Your task to perform on an android device: allow notifications from all sites in the chrome app Image 0: 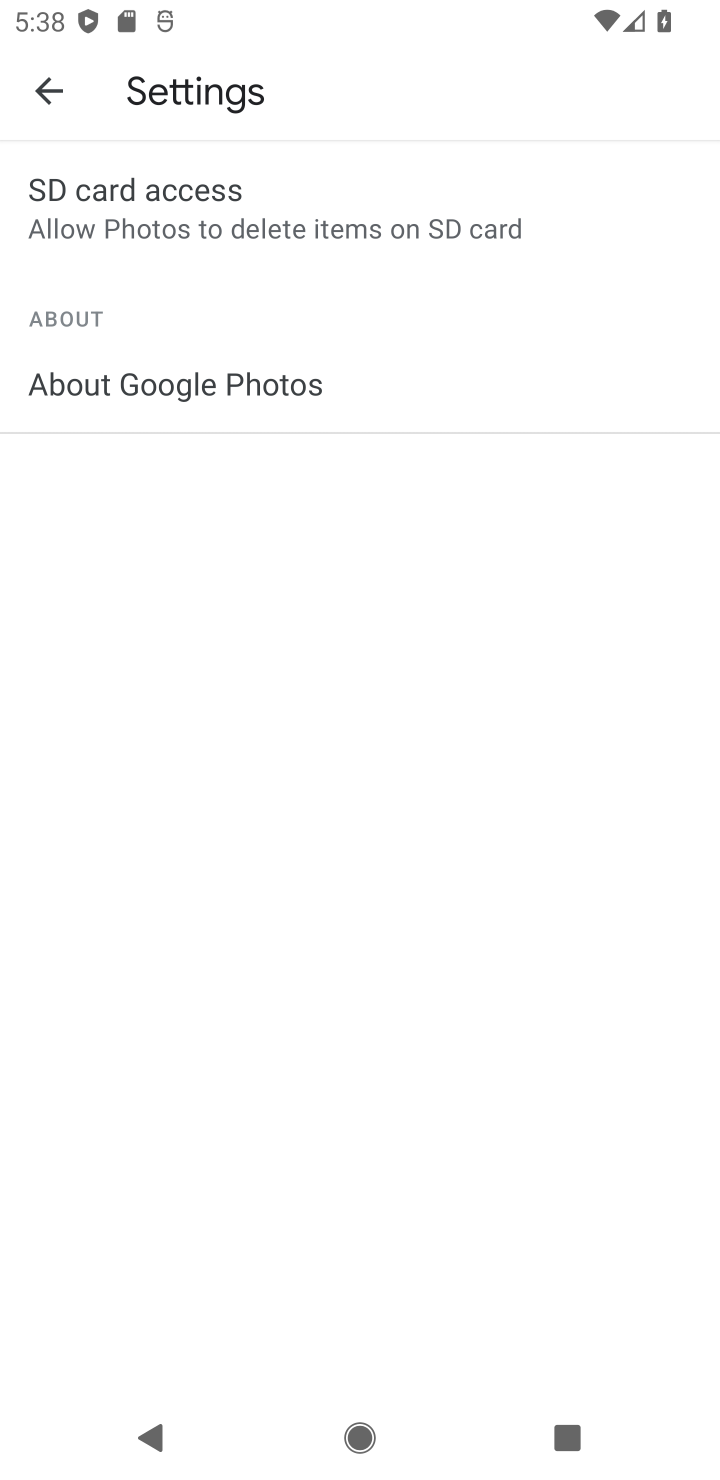
Step 0: press home button
Your task to perform on an android device: allow notifications from all sites in the chrome app Image 1: 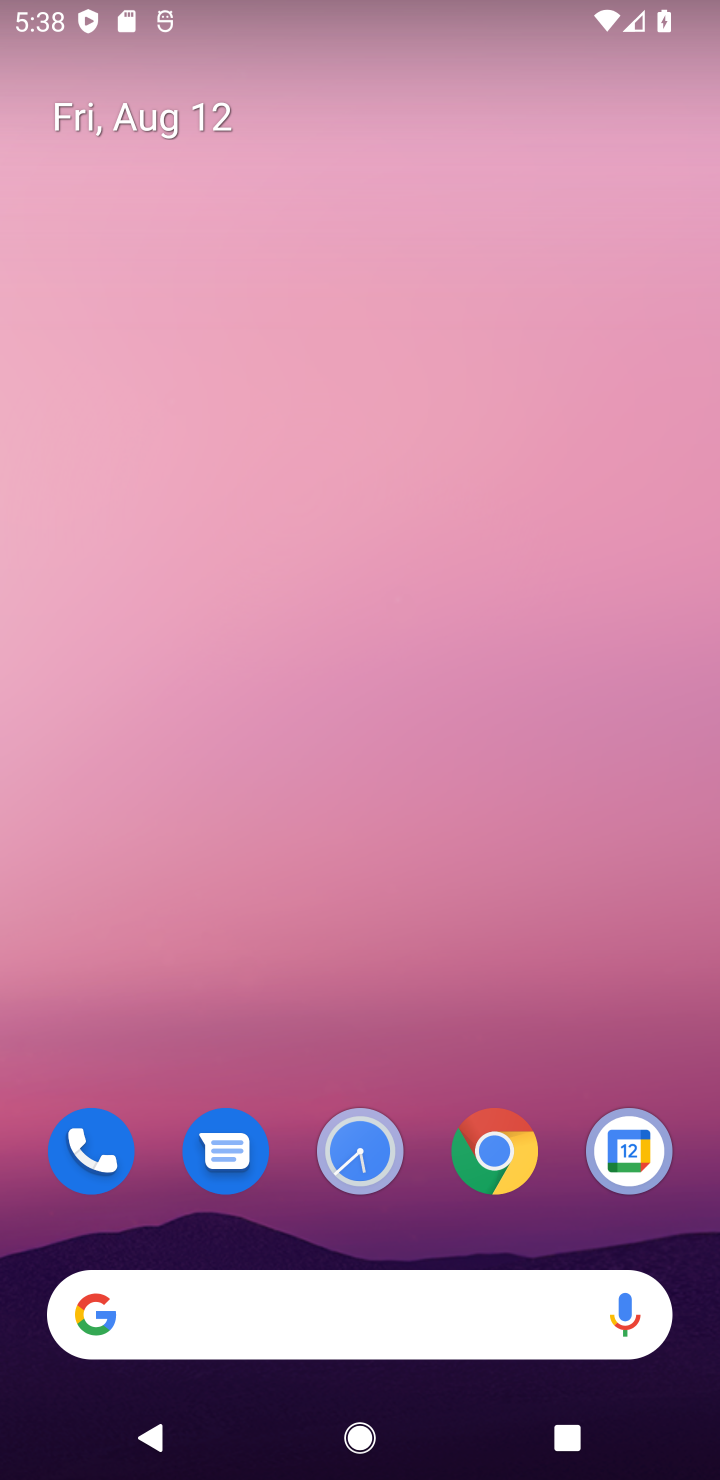
Step 1: drag from (498, 960) to (486, 102)
Your task to perform on an android device: allow notifications from all sites in the chrome app Image 2: 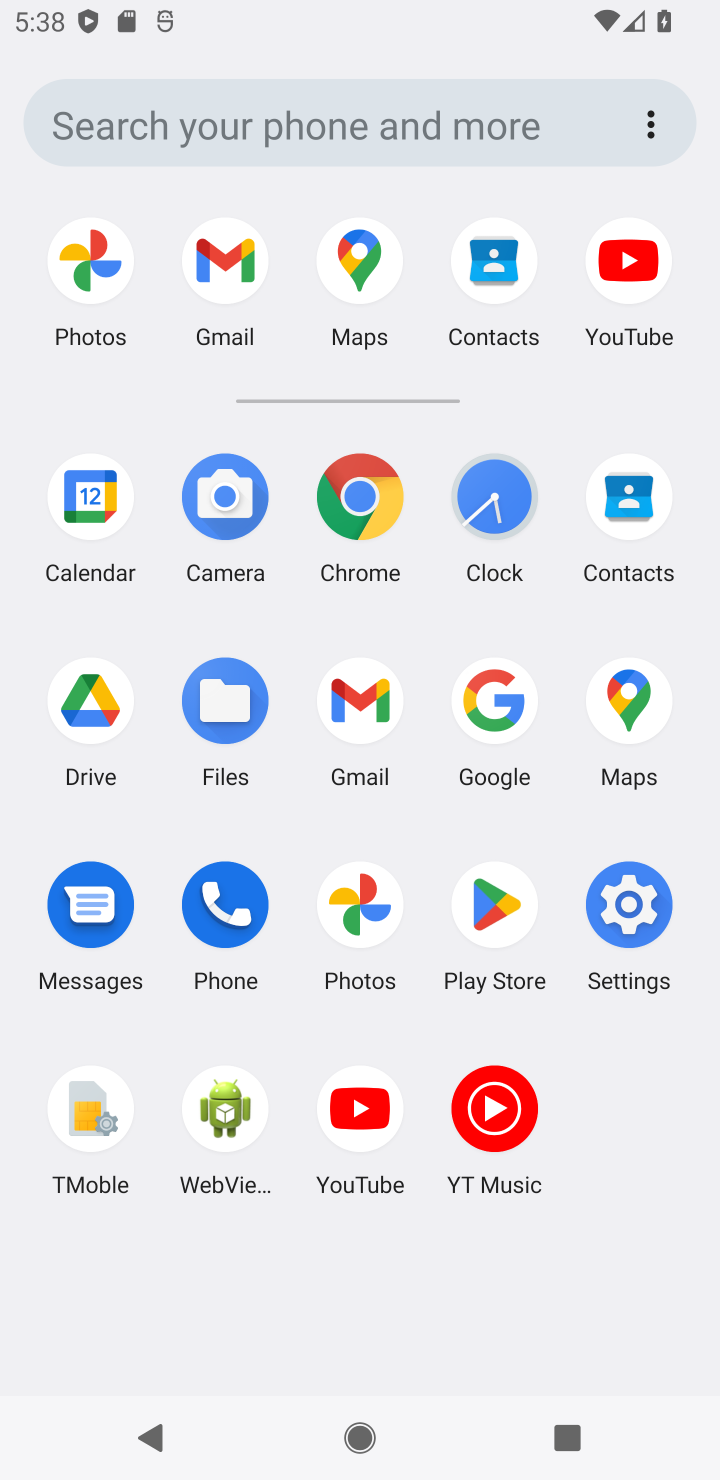
Step 2: click (350, 511)
Your task to perform on an android device: allow notifications from all sites in the chrome app Image 3: 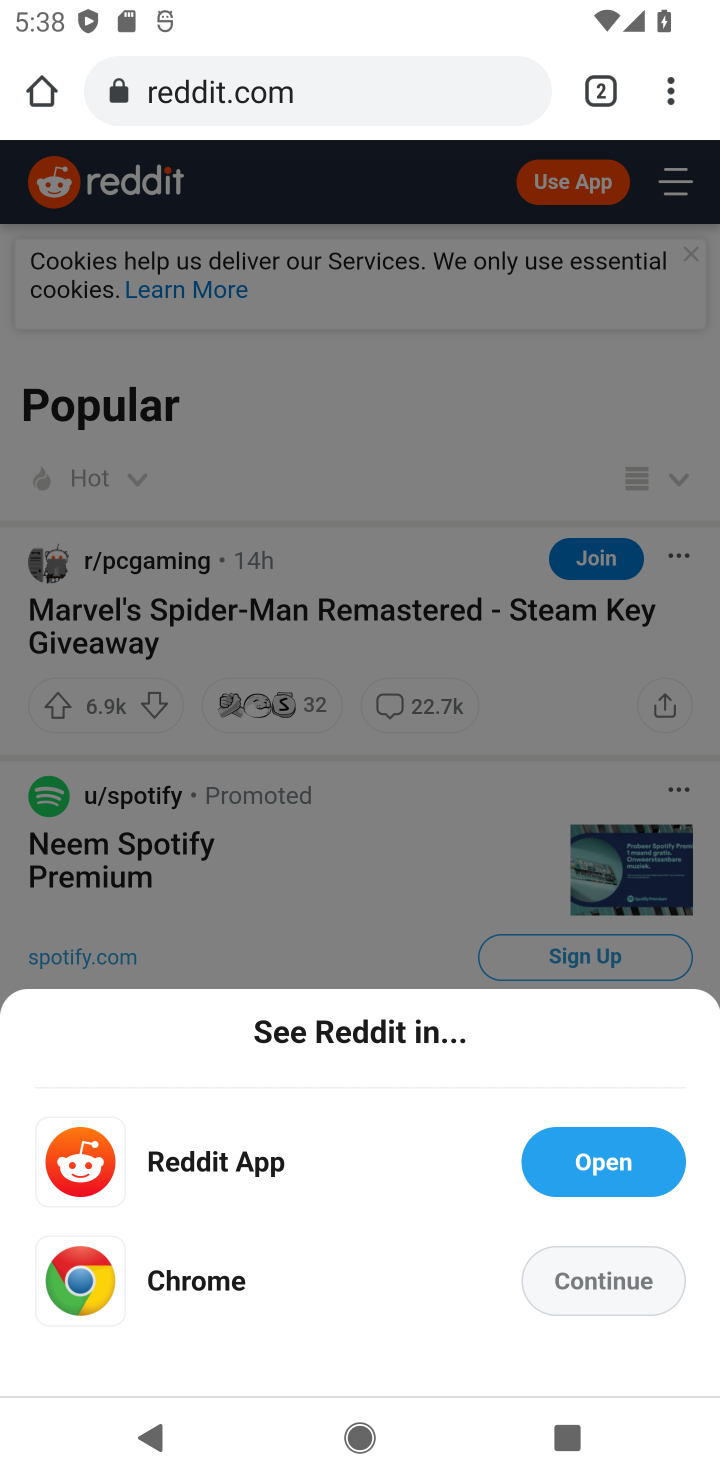
Step 3: drag from (687, 75) to (429, 1263)
Your task to perform on an android device: allow notifications from all sites in the chrome app Image 4: 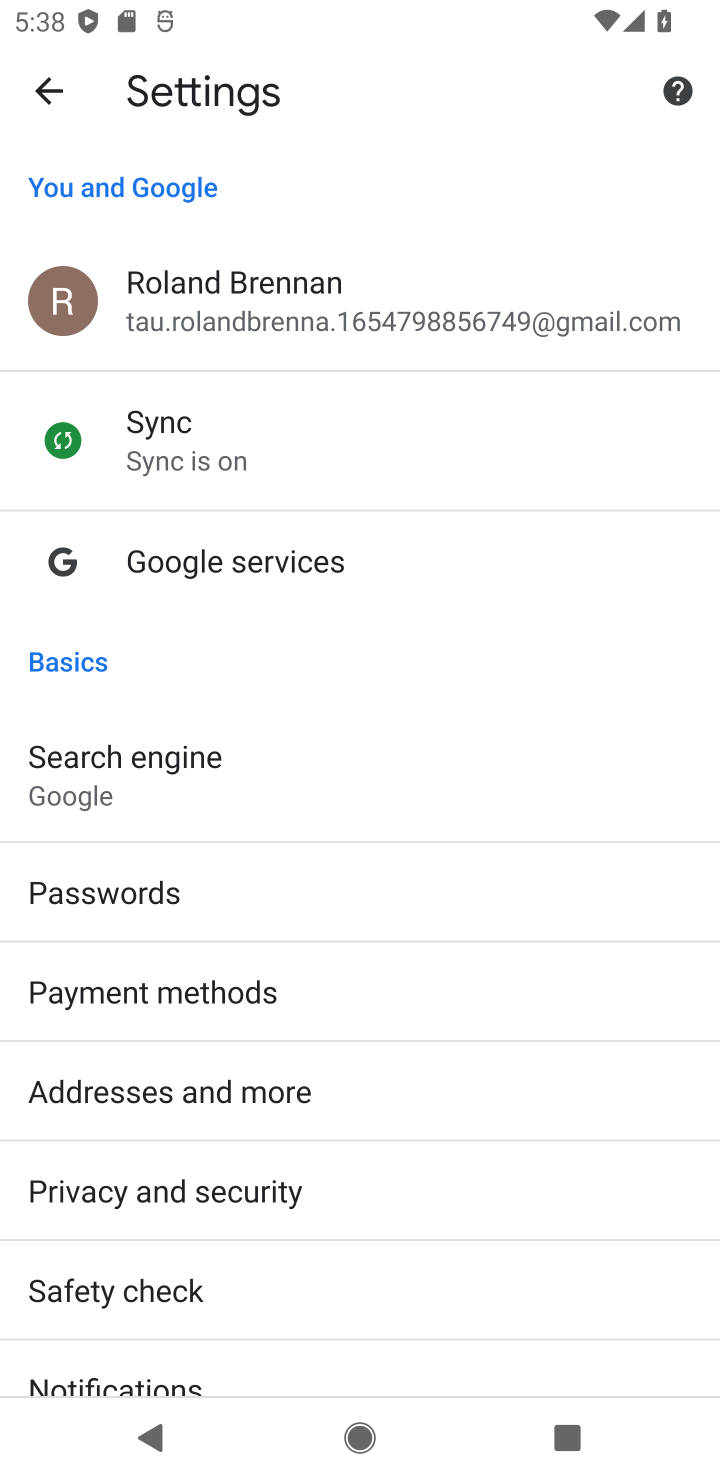
Step 4: drag from (400, 1222) to (434, 581)
Your task to perform on an android device: allow notifications from all sites in the chrome app Image 5: 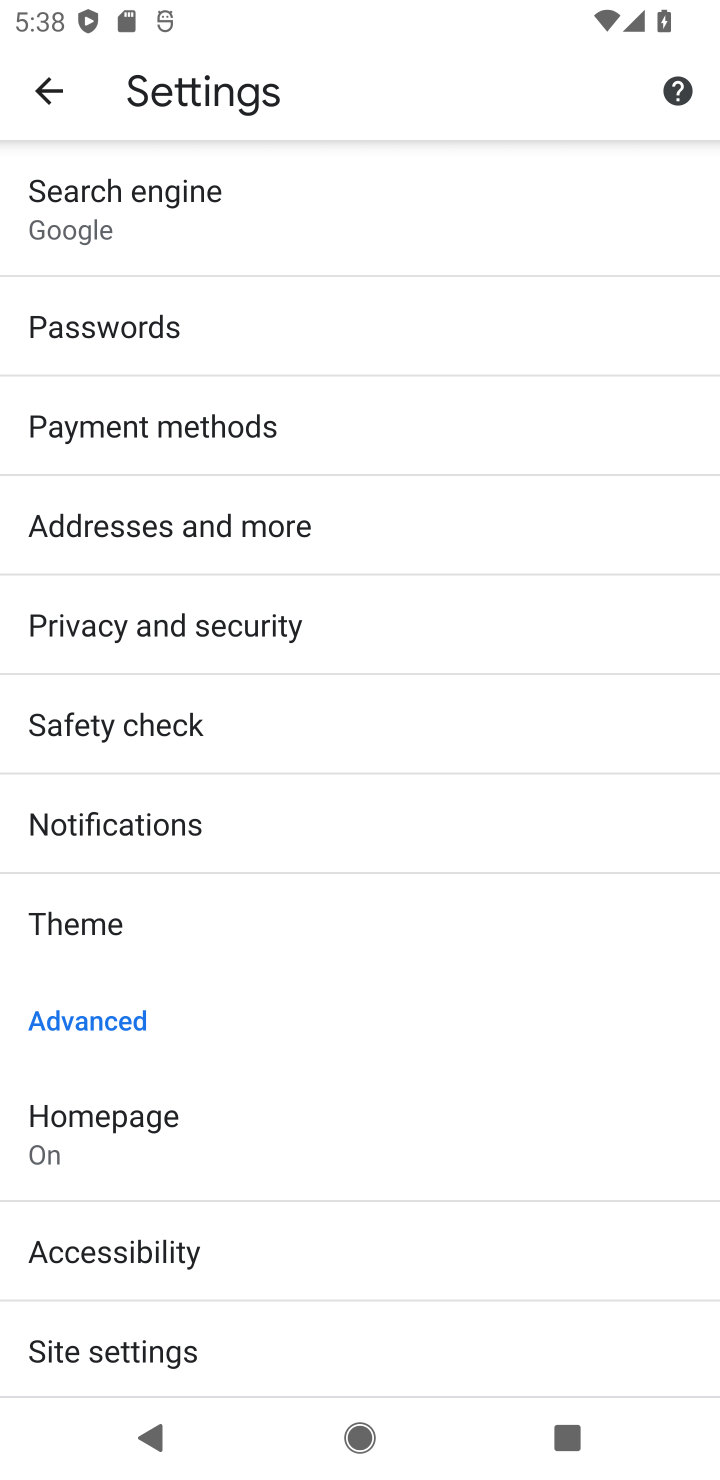
Step 5: click (162, 814)
Your task to perform on an android device: allow notifications from all sites in the chrome app Image 6: 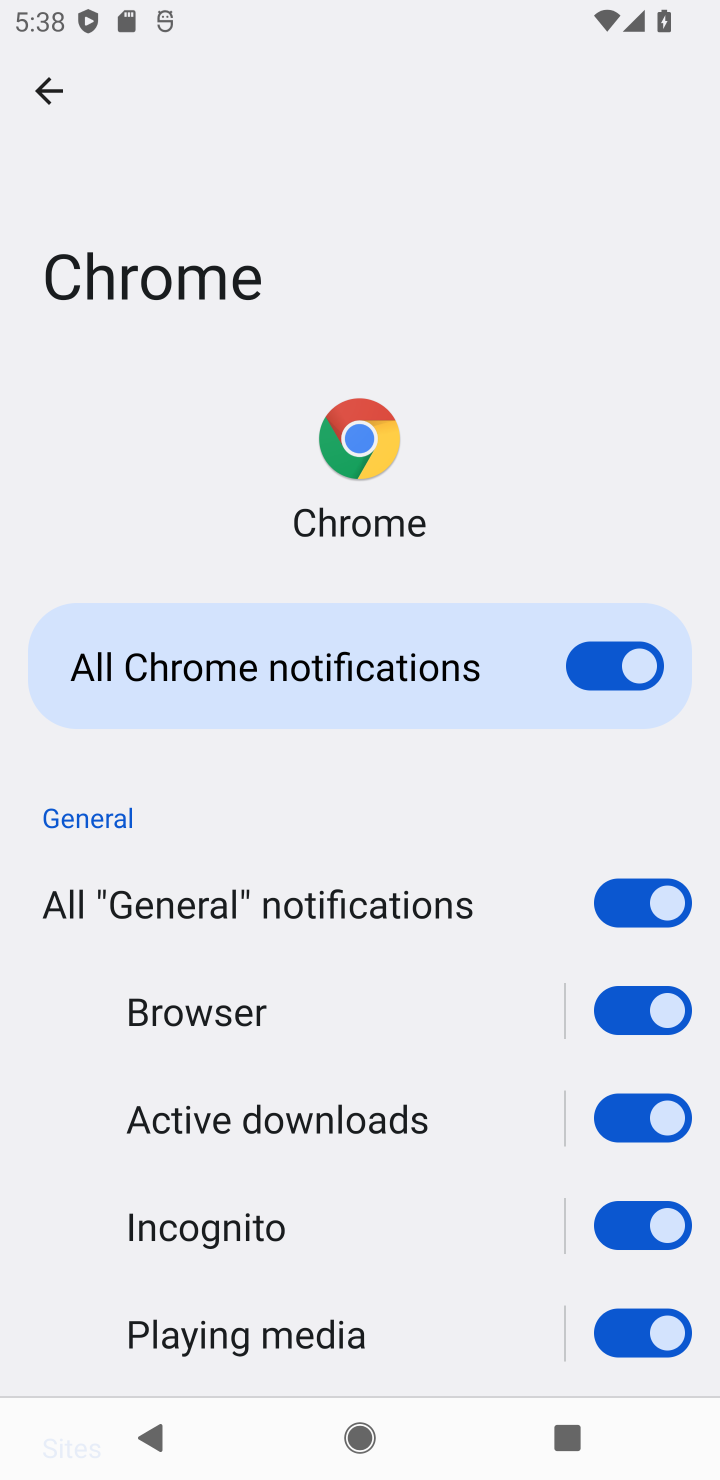
Step 6: task complete